Your task to perform on an android device: find snoozed emails in the gmail app Image 0: 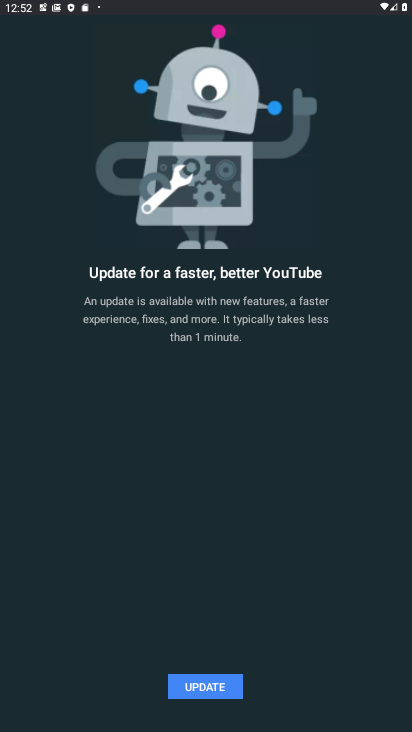
Step 0: press back button
Your task to perform on an android device: find snoozed emails in the gmail app Image 1: 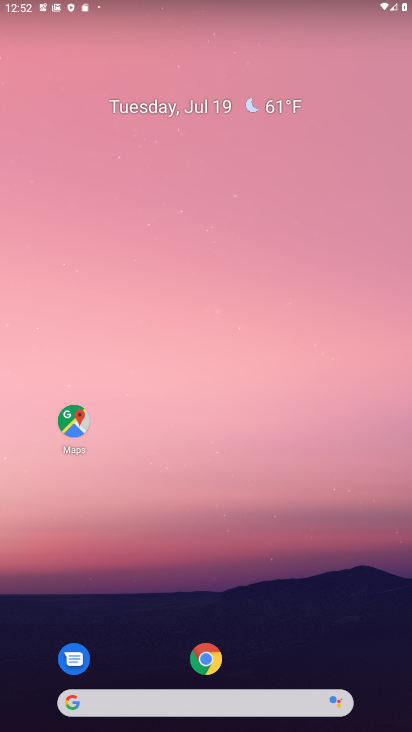
Step 1: drag from (380, 659) to (269, 116)
Your task to perform on an android device: find snoozed emails in the gmail app Image 2: 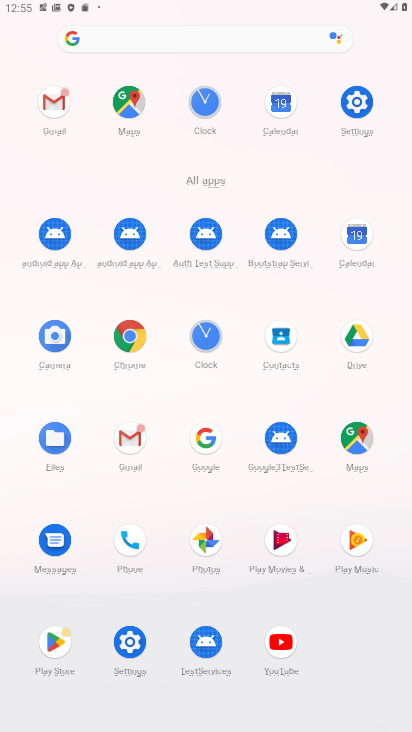
Step 2: click (138, 432)
Your task to perform on an android device: find snoozed emails in the gmail app Image 3: 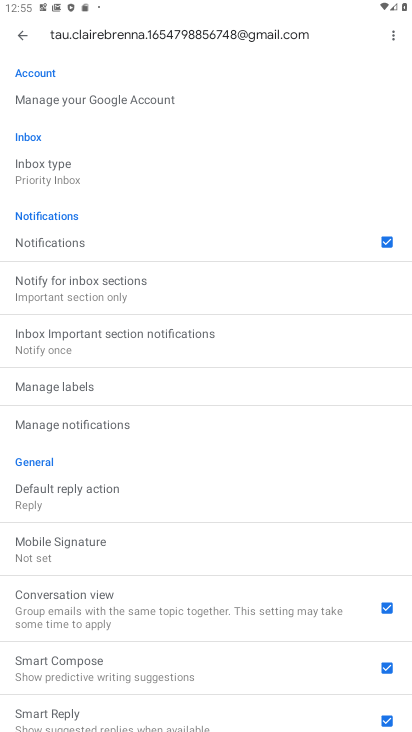
Step 3: click (20, 27)
Your task to perform on an android device: find snoozed emails in the gmail app Image 4: 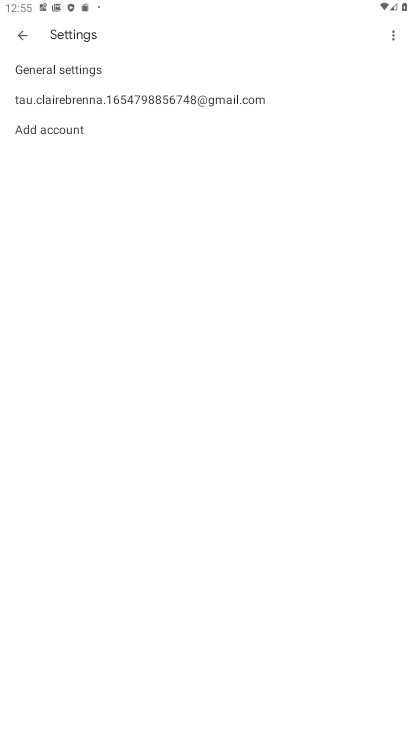
Step 4: click (20, 34)
Your task to perform on an android device: find snoozed emails in the gmail app Image 5: 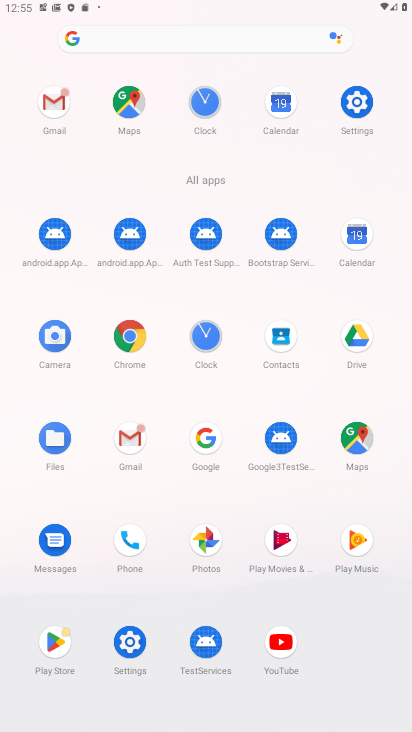
Step 5: click (54, 107)
Your task to perform on an android device: find snoozed emails in the gmail app Image 6: 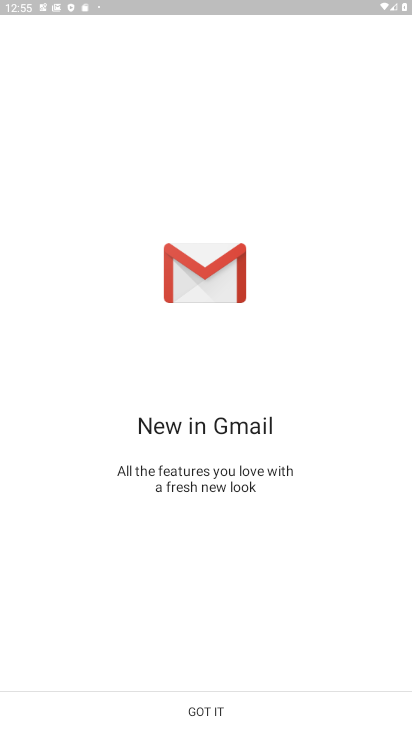
Step 6: click (198, 710)
Your task to perform on an android device: find snoozed emails in the gmail app Image 7: 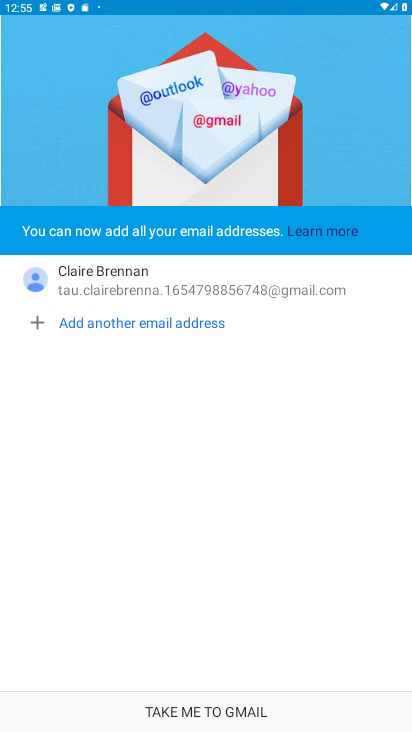
Step 7: click (198, 710)
Your task to perform on an android device: find snoozed emails in the gmail app Image 8: 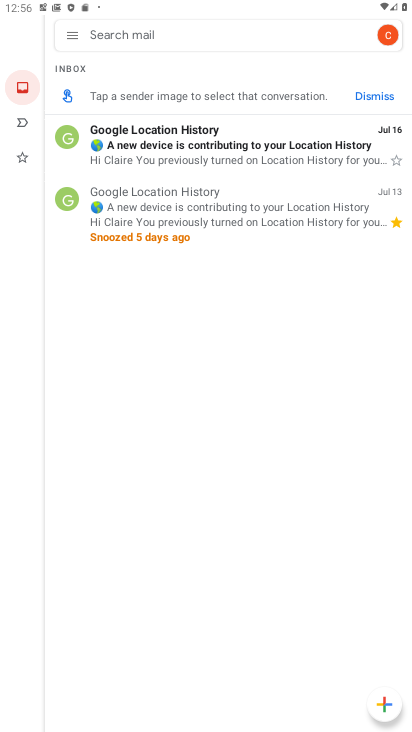
Step 8: click (65, 35)
Your task to perform on an android device: find snoozed emails in the gmail app Image 9: 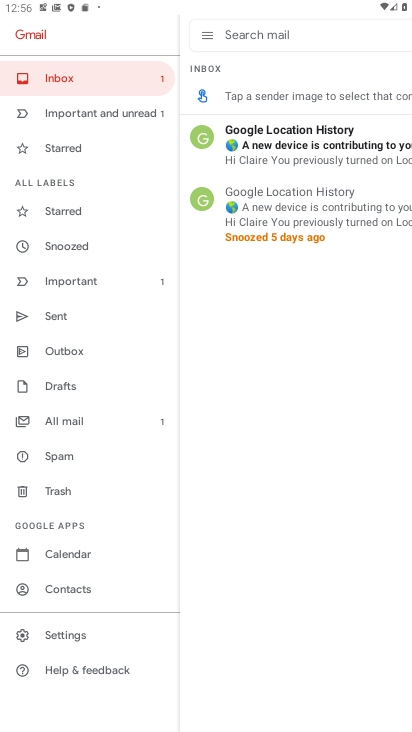
Step 9: click (68, 246)
Your task to perform on an android device: find snoozed emails in the gmail app Image 10: 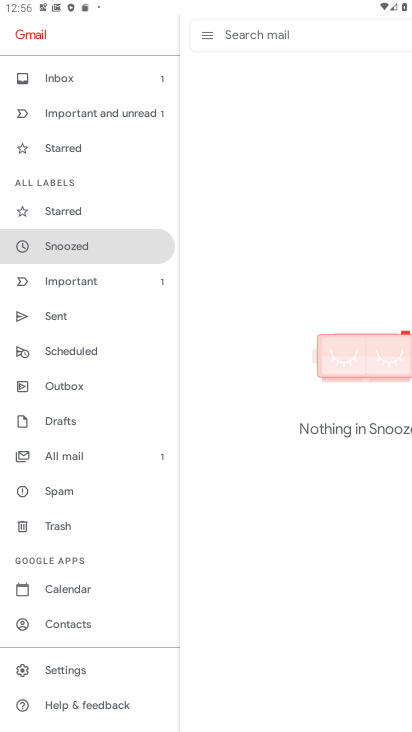
Step 10: task complete